Your task to perform on an android device: Check the weather Image 0: 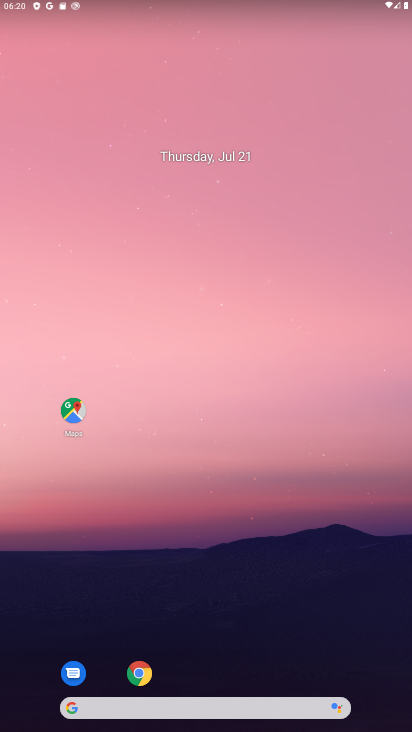
Step 0: click (161, 714)
Your task to perform on an android device: Check the weather Image 1: 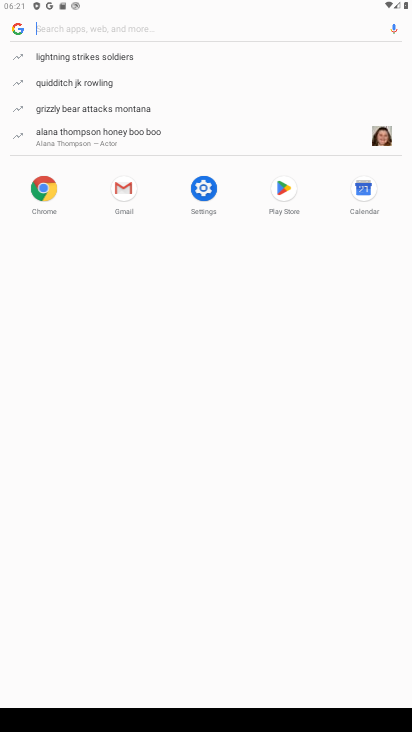
Step 1: type "wheather"
Your task to perform on an android device: Check the weather Image 2: 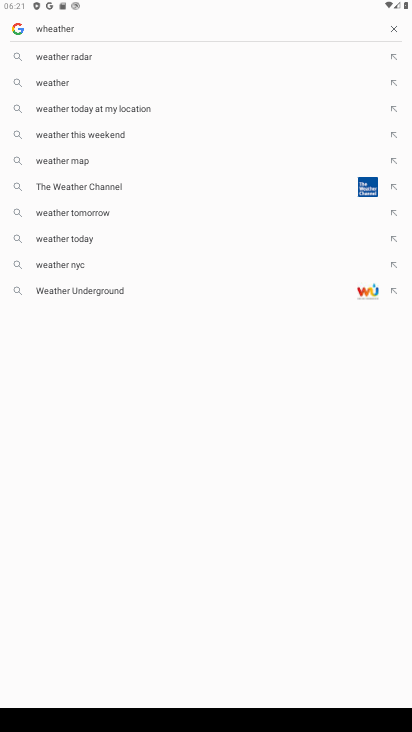
Step 2: click (55, 83)
Your task to perform on an android device: Check the weather Image 3: 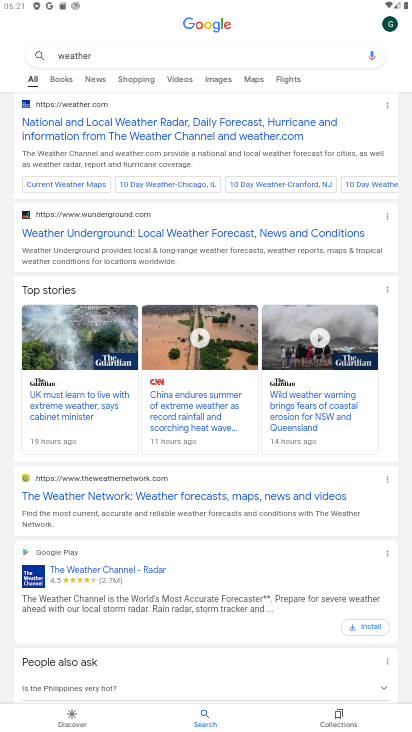
Step 3: click (99, 130)
Your task to perform on an android device: Check the weather Image 4: 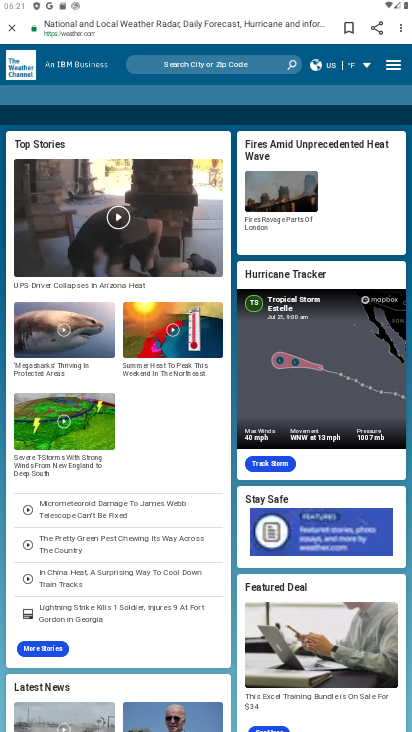
Step 4: task complete